Your task to perform on an android device: remove spam from my inbox in the gmail app Image 0: 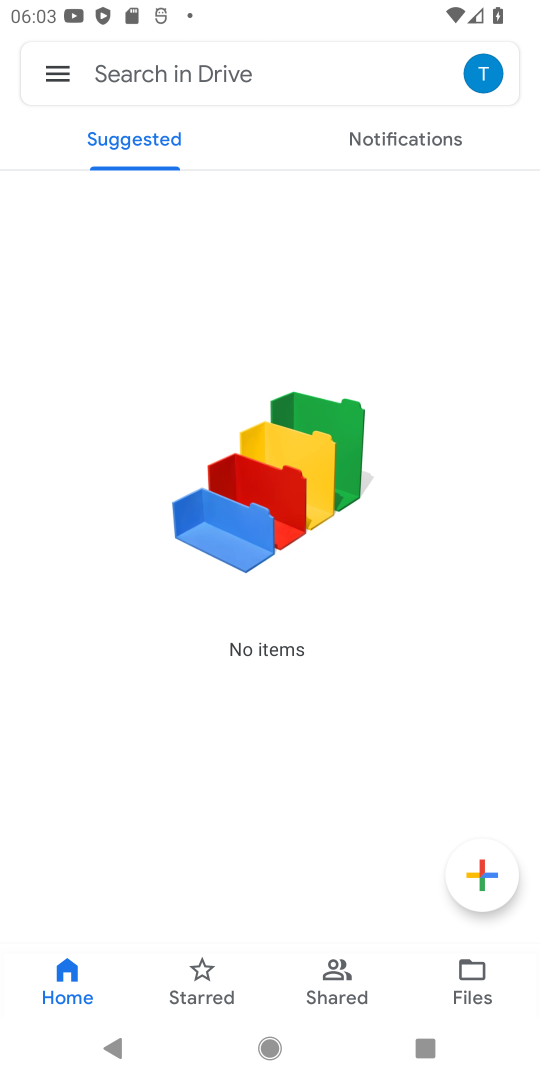
Step 0: click (44, 76)
Your task to perform on an android device: remove spam from my inbox in the gmail app Image 1: 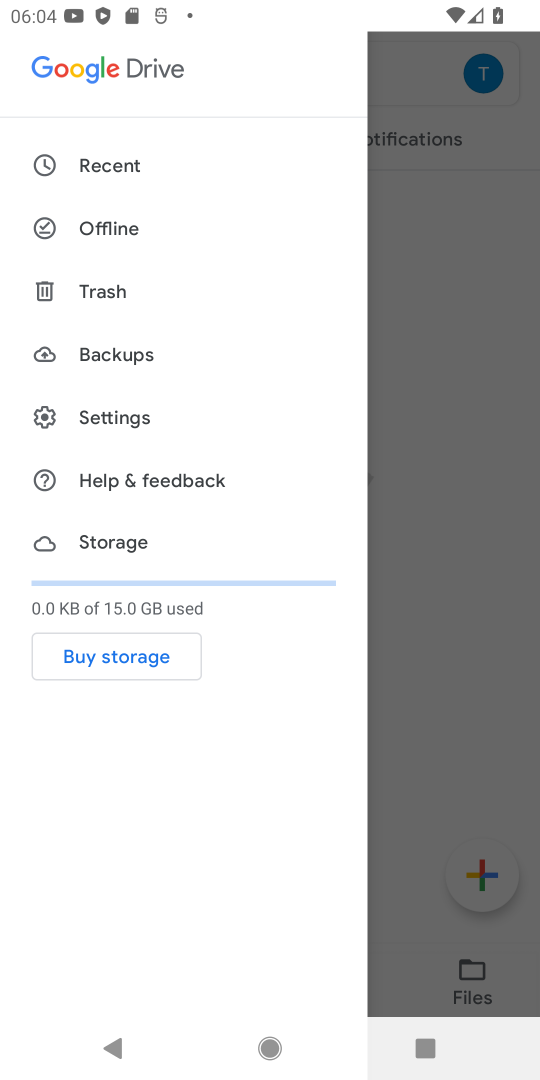
Step 1: press home button
Your task to perform on an android device: remove spam from my inbox in the gmail app Image 2: 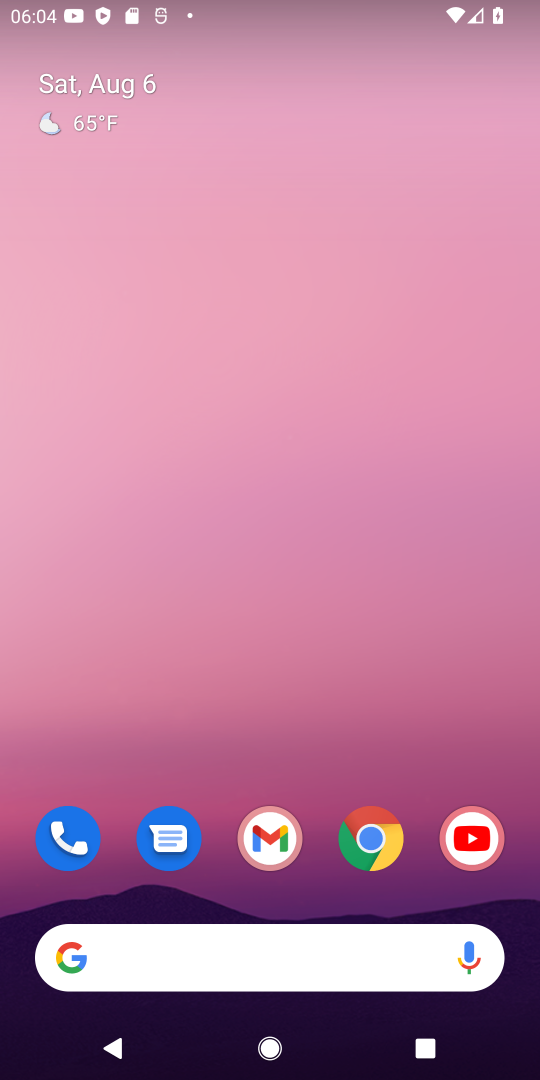
Step 2: drag from (313, 889) to (146, 186)
Your task to perform on an android device: remove spam from my inbox in the gmail app Image 3: 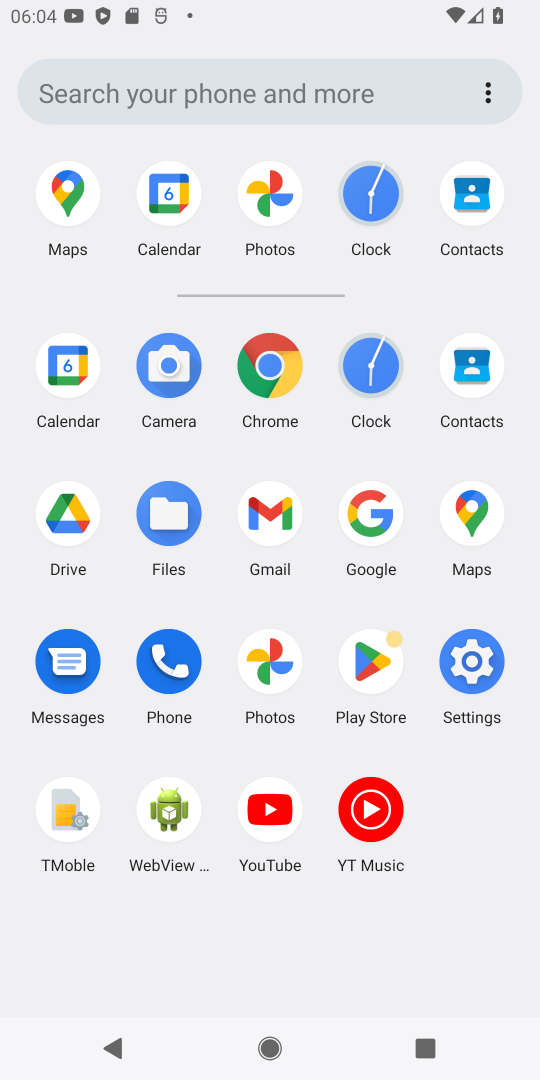
Step 3: click (279, 621)
Your task to perform on an android device: remove spam from my inbox in the gmail app Image 4: 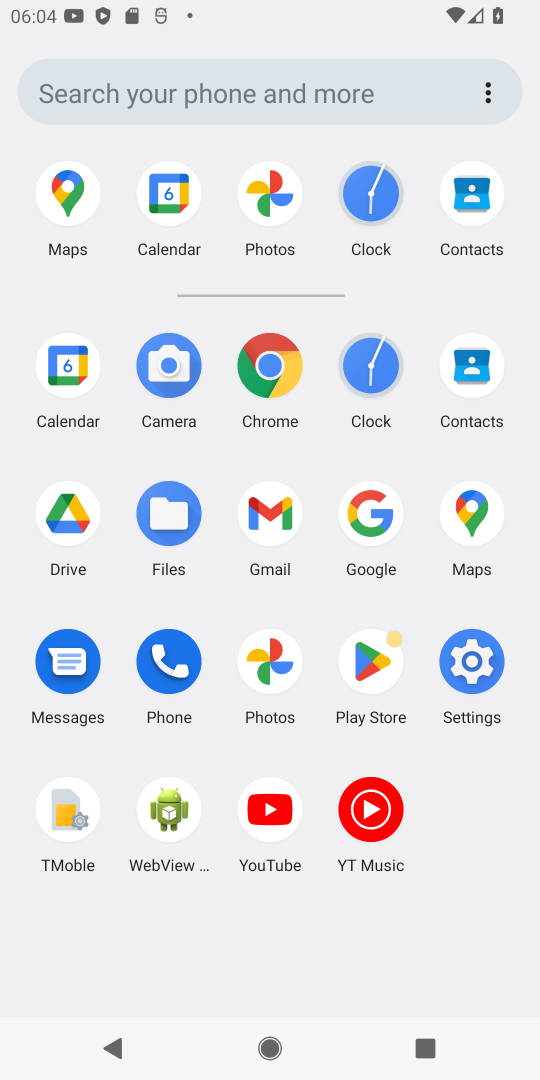
Step 4: click (286, 535)
Your task to perform on an android device: remove spam from my inbox in the gmail app Image 5: 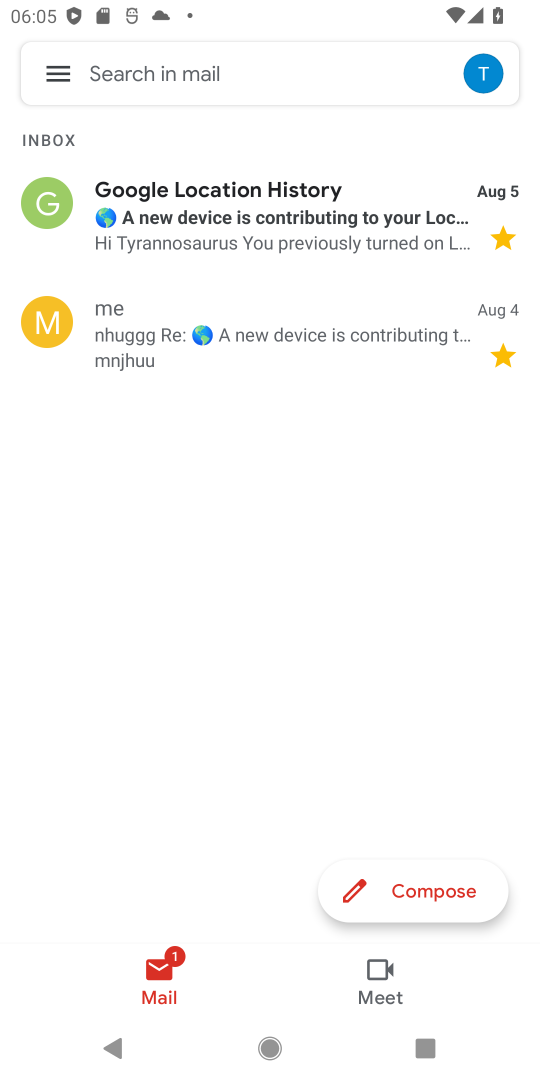
Step 5: click (69, 88)
Your task to perform on an android device: remove spam from my inbox in the gmail app Image 6: 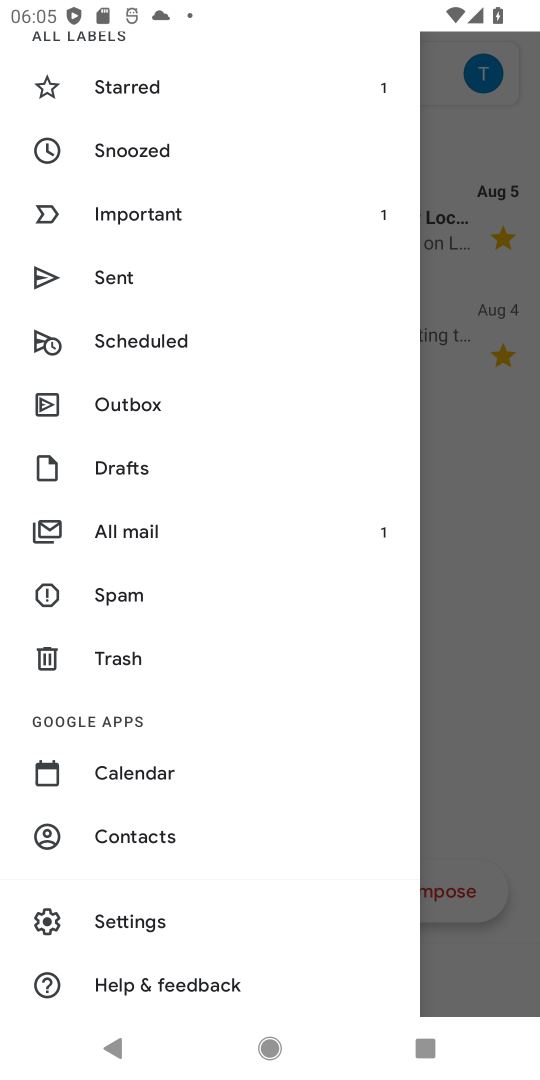
Step 6: click (120, 597)
Your task to perform on an android device: remove spam from my inbox in the gmail app Image 7: 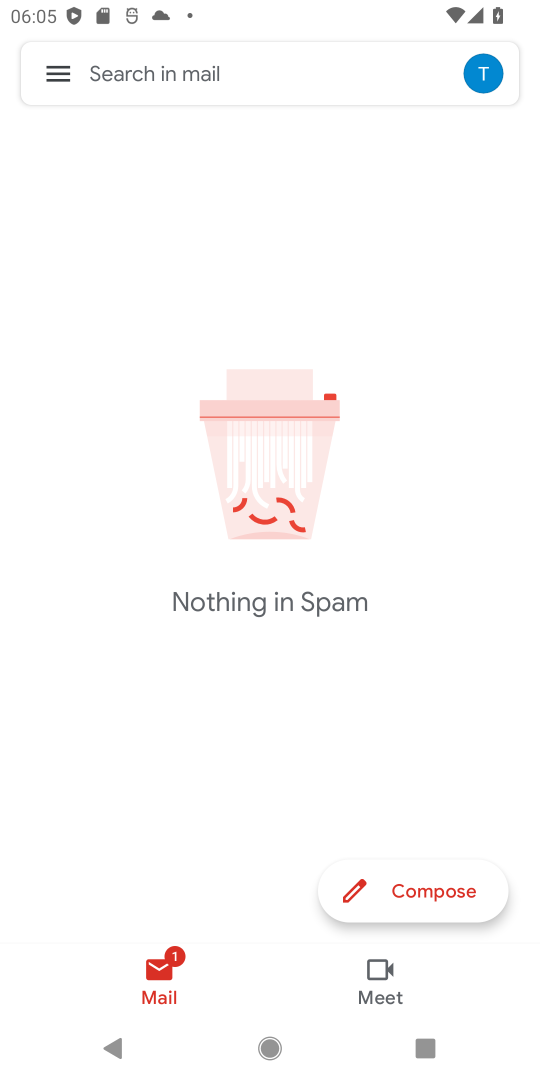
Step 7: task complete